Your task to perform on an android device: Open the stopwatch Image 0: 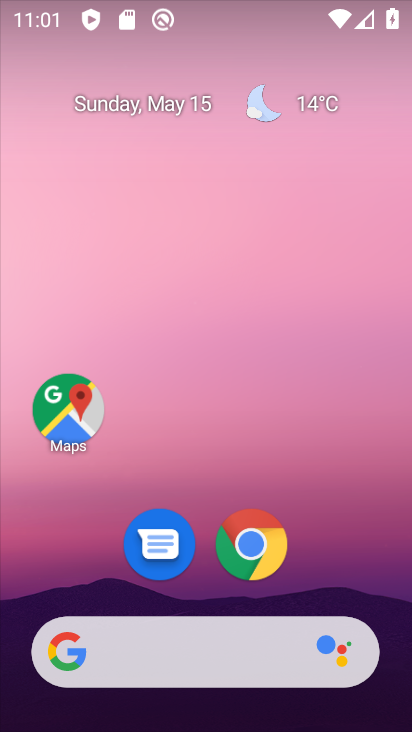
Step 0: drag from (86, 582) to (214, 98)
Your task to perform on an android device: Open the stopwatch Image 1: 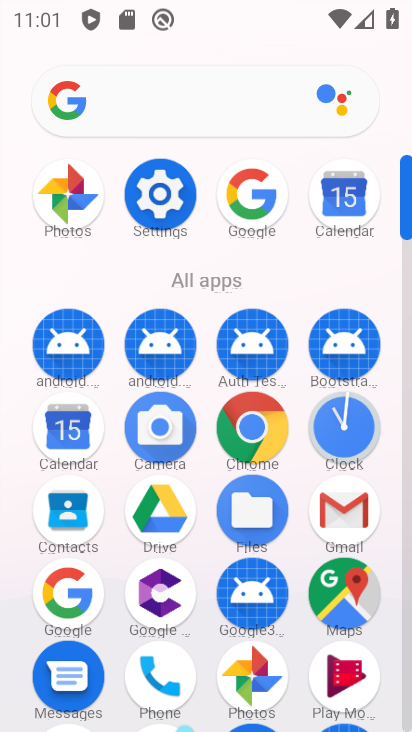
Step 1: click (358, 430)
Your task to perform on an android device: Open the stopwatch Image 2: 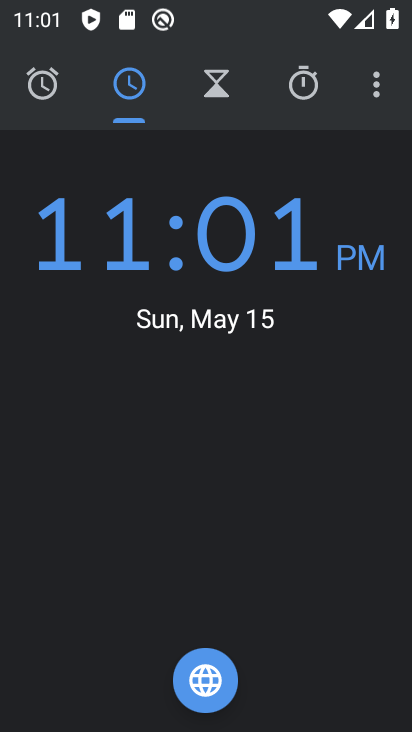
Step 2: click (308, 86)
Your task to perform on an android device: Open the stopwatch Image 3: 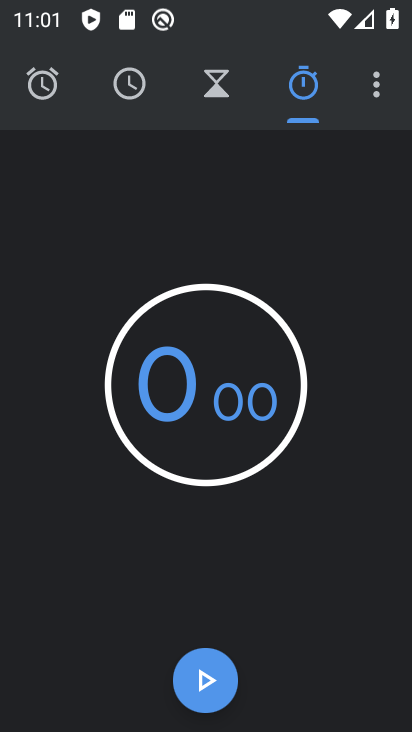
Step 3: task complete